Your task to perform on an android device: Go to Amazon Image 0: 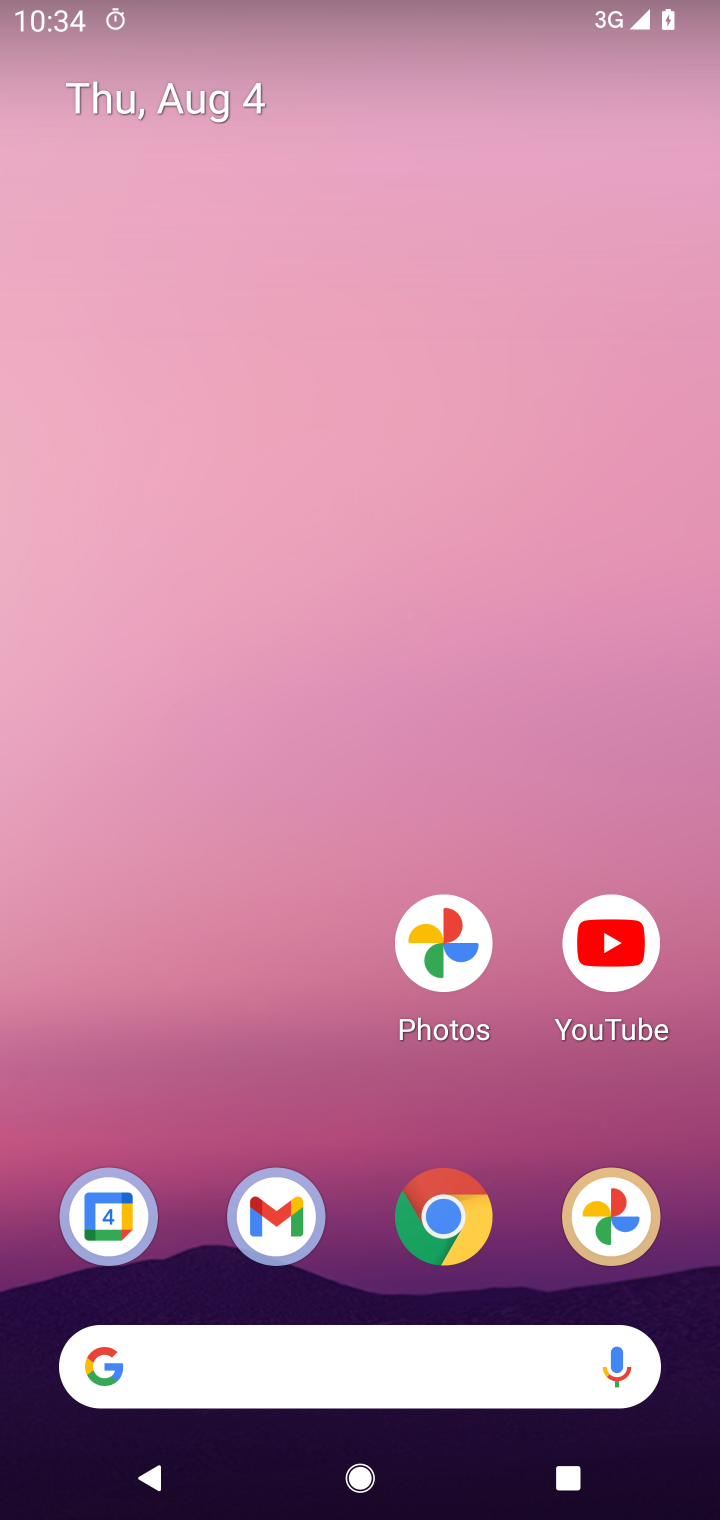
Step 0: click (452, 1208)
Your task to perform on an android device: Go to Amazon Image 1: 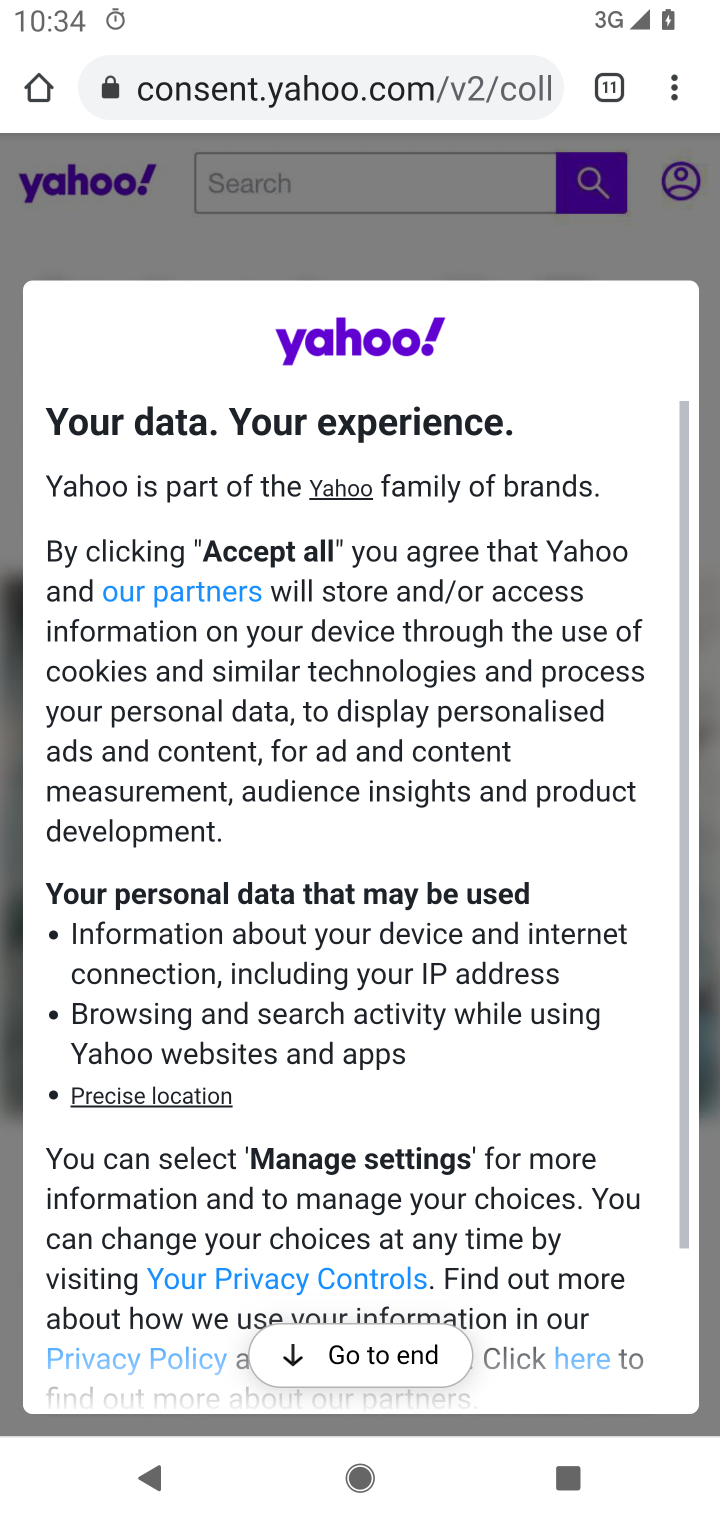
Step 1: drag from (670, 98) to (503, 309)
Your task to perform on an android device: Go to Amazon Image 2: 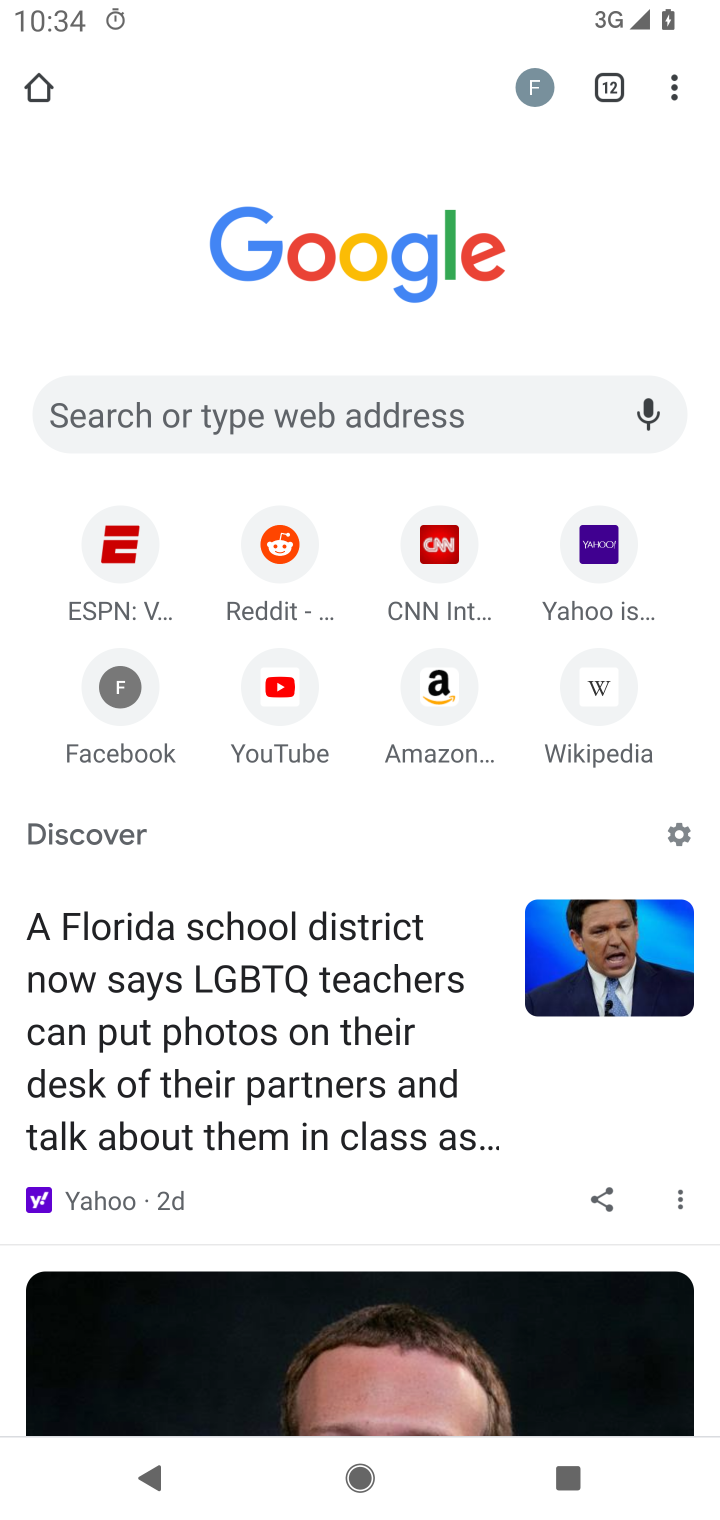
Step 2: click (444, 696)
Your task to perform on an android device: Go to Amazon Image 3: 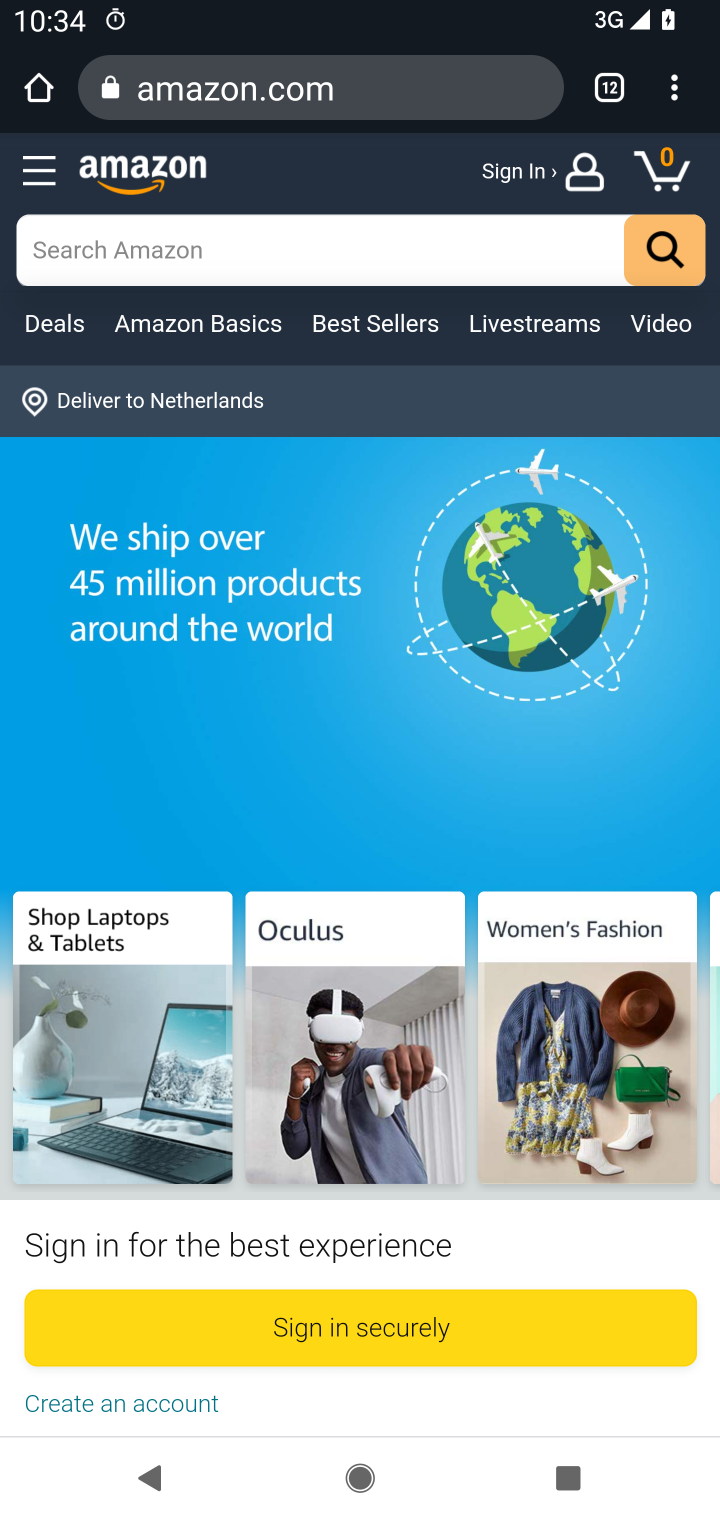
Step 3: task complete